Your task to perform on an android device: change the upload size in google photos Image 0: 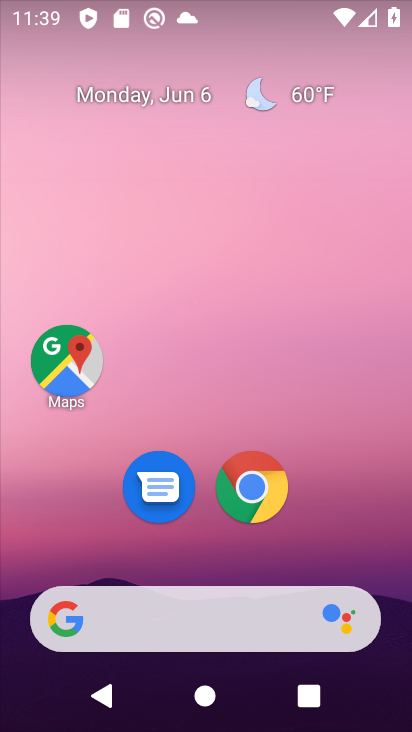
Step 0: drag from (389, 586) to (310, 227)
Your task to perform on an android device: change the upload size in google photos Image 1: 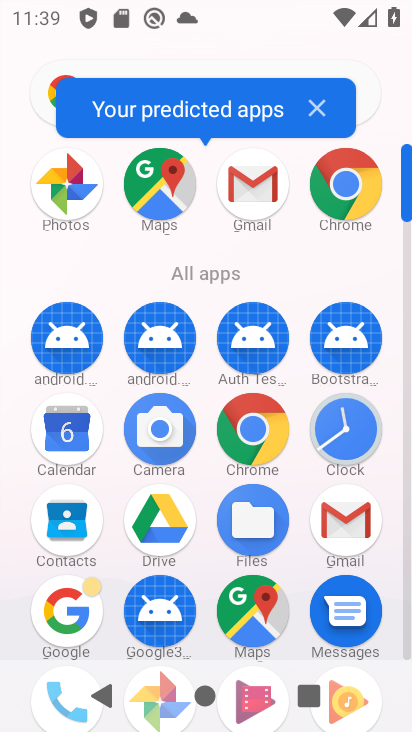
Step 1: click (72, 178)
Your task to perform on an android device: change the upload size in google photos Image 2: 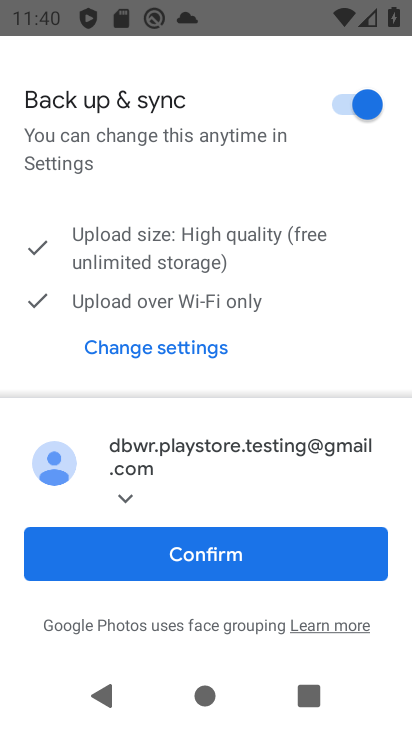
Step 2: click (229, 548)
Your task to perform on an android device: change the upload size in google photos Image 3: 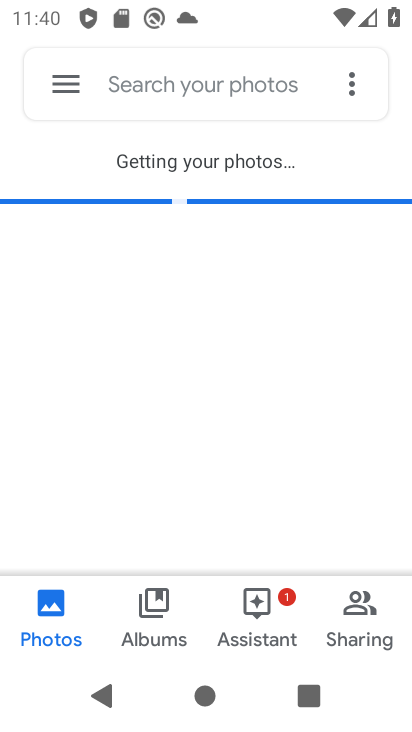
Step 3: click (69, 91)
Your task to perform on an android device: change the upload size in google photos Image 4: 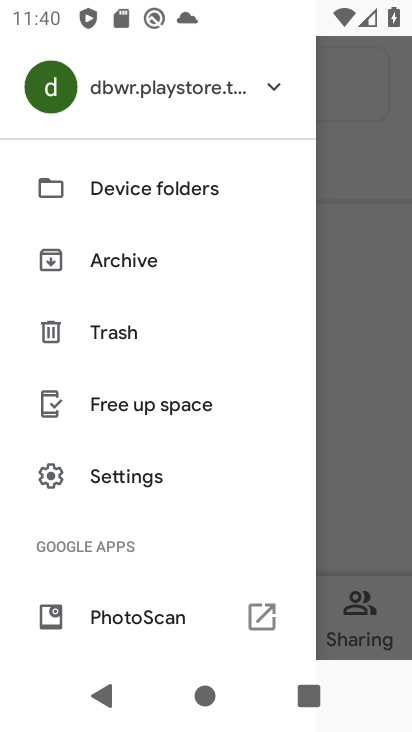
Step 4: click (141, 489)
Your task to perform on an android device: change the upload size in google photos Image 5: 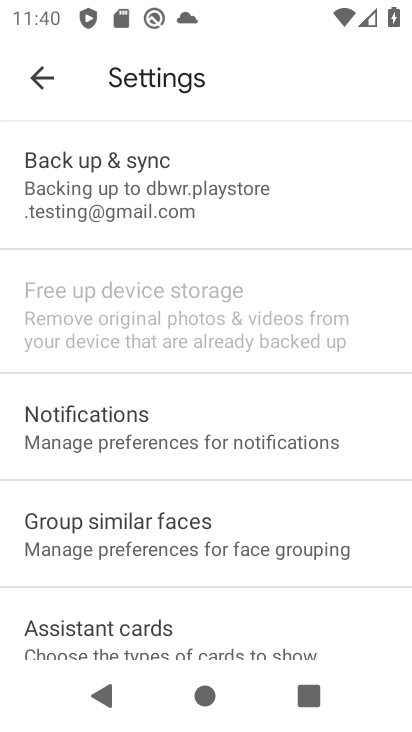
Step 5: click (115, 155)
Your task to perform on an android device: change the upload size in google photos Image 6: 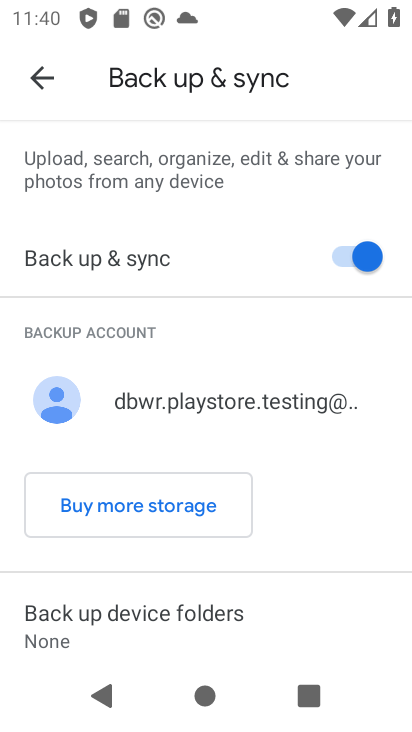
Step 6: drag from (272, 583) to (178, 52)
Your task to perform on an android device: change the upload size in google photos Image 7: 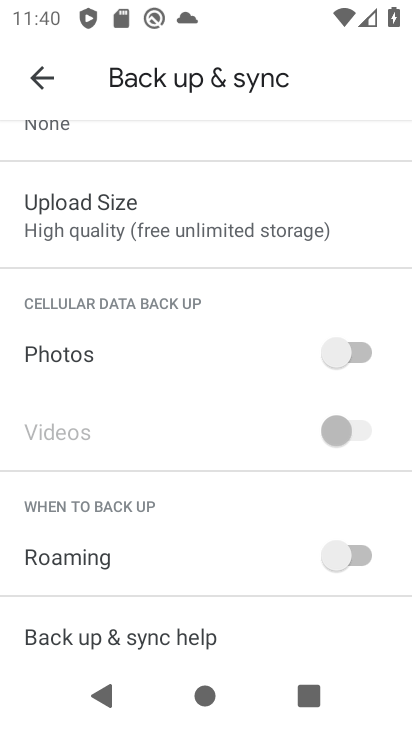
Step 7: click (217, 600)
Your task to perform on an android device: change the upload size in google photos Image 8: 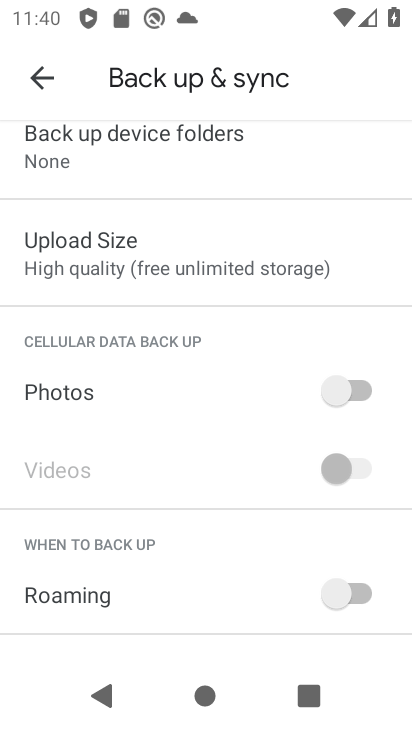
Step 8: click (182, 256)
Your task to perform on an android device: change the upload size in google photos Image 9: 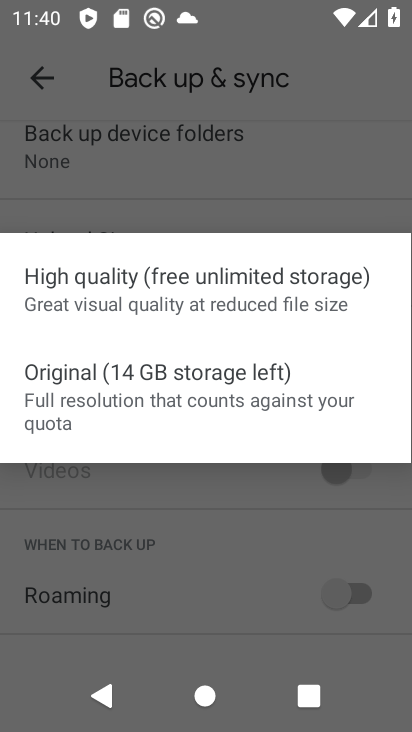
Step 9: click (209, 374)
Your task to perform on an android device: change the upload size in google photos Image 10: 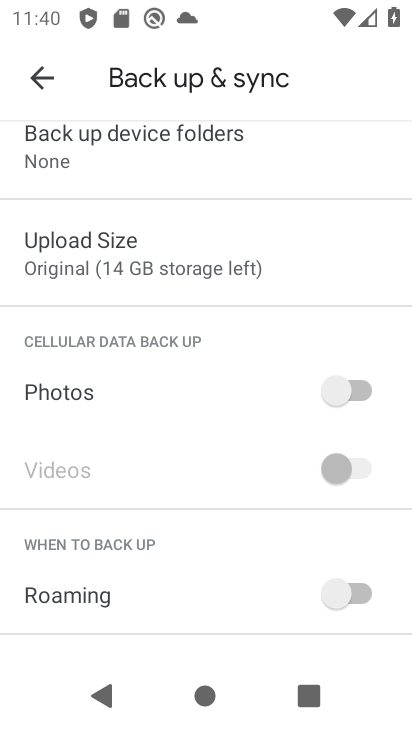
Step 10: task complete